Your task to perform on an android device: uninstall "Pluto TV - Live TV and Movies" Image 0: 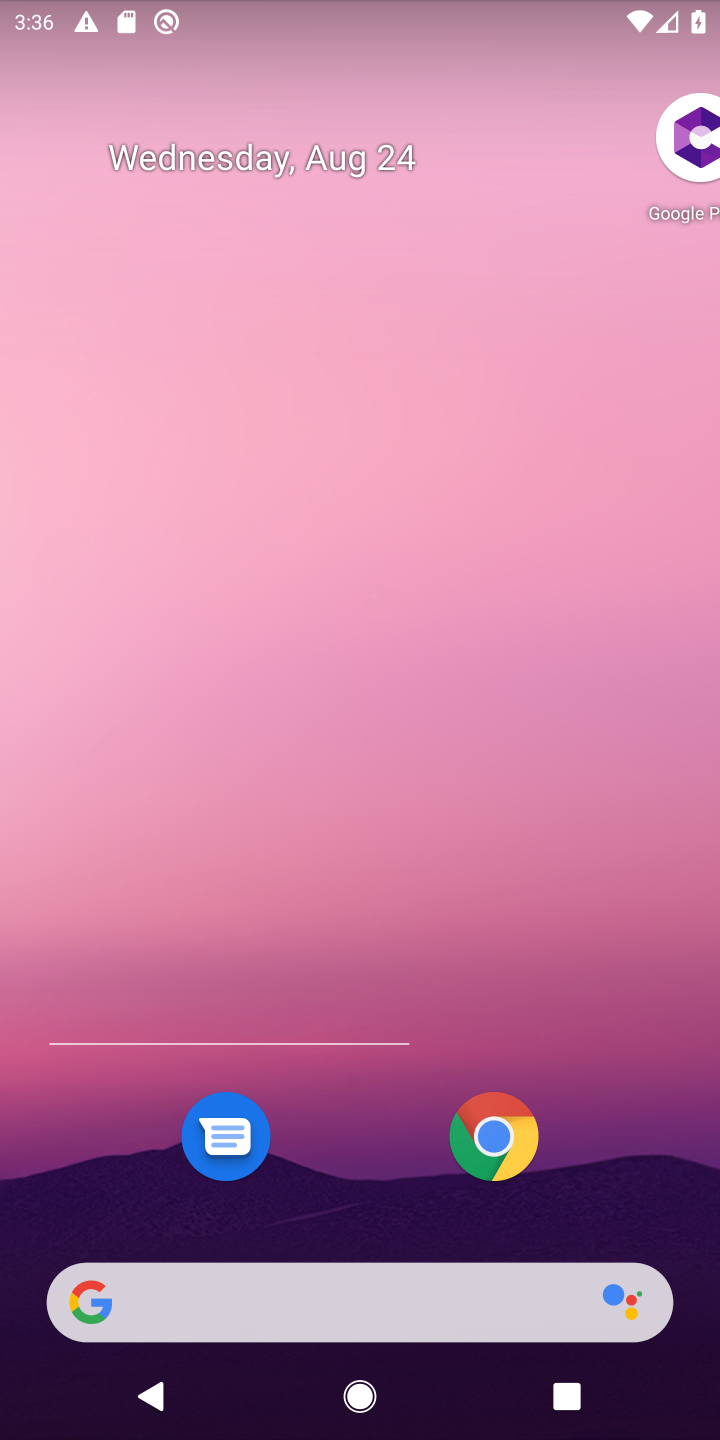
Step 0: press home button
Your task to perform on an android device: uninstall "Pluto TV - Live TV and Movies" Image 1: 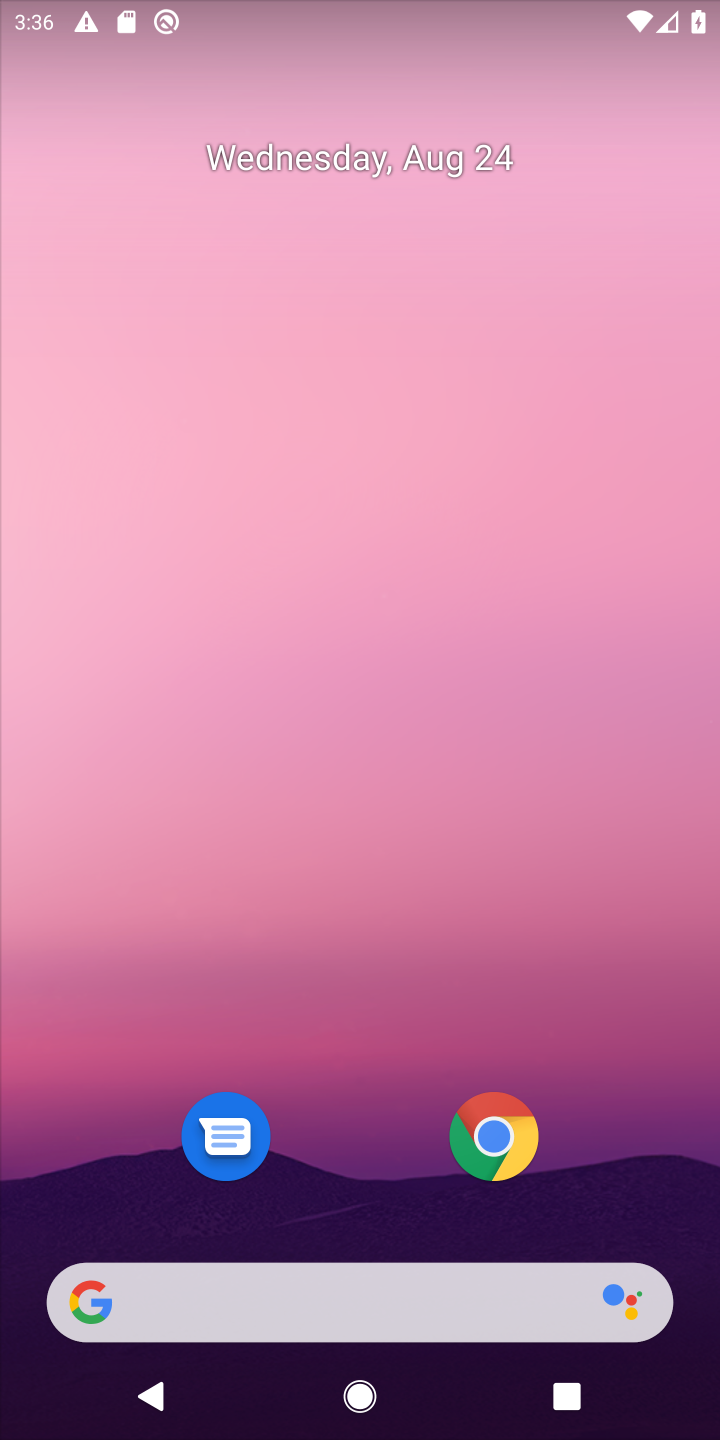
Step 1: press home button
Your task to perform on an android device: uninstall "Pluto TV - Live TV and Movies" Image 2: 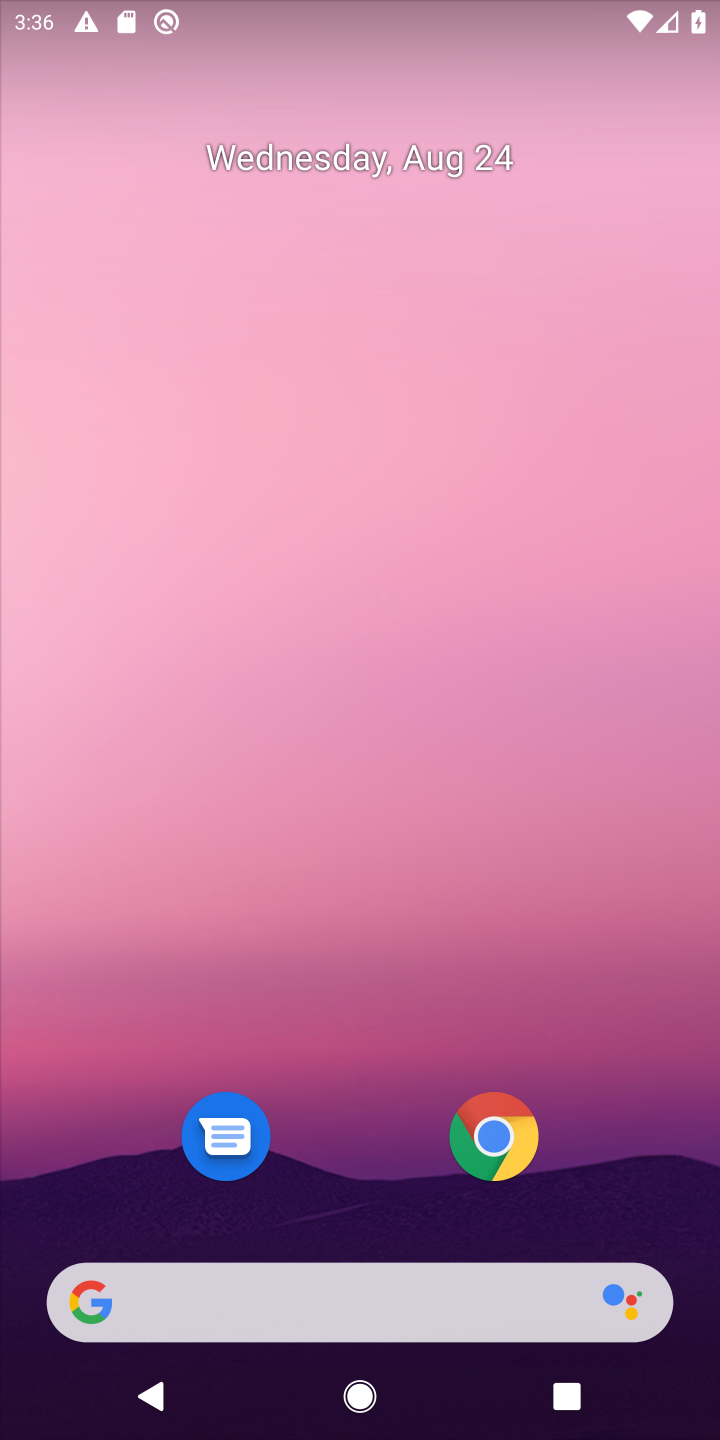
Step 2: drag from (358, 495) to (392, 108)
Your task to perform on an android device: uninstall "Pluto TV - Live TV and Movies" Image 3: 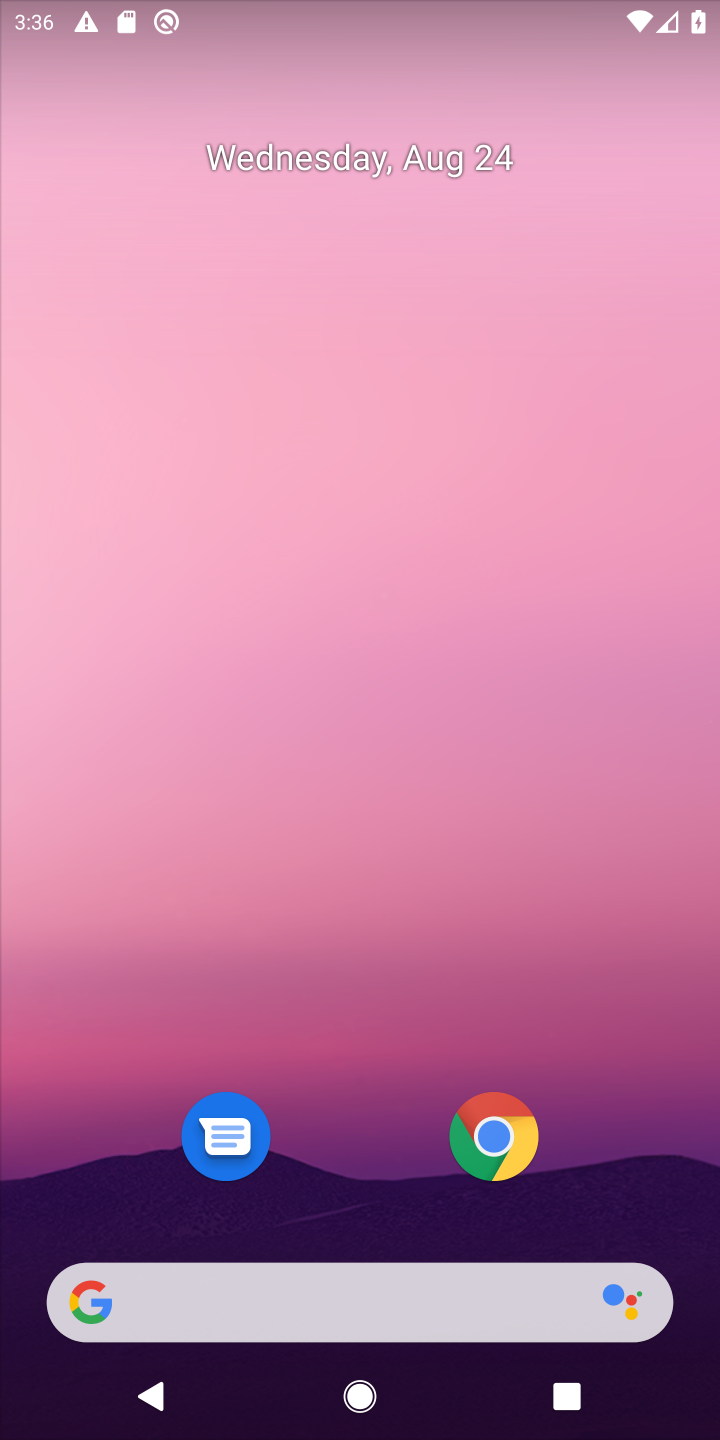
Step 3: click (358, 258)
Your task to perform on an android device: uninstall "Pluto TV - Live TV and Movies" Image 4: 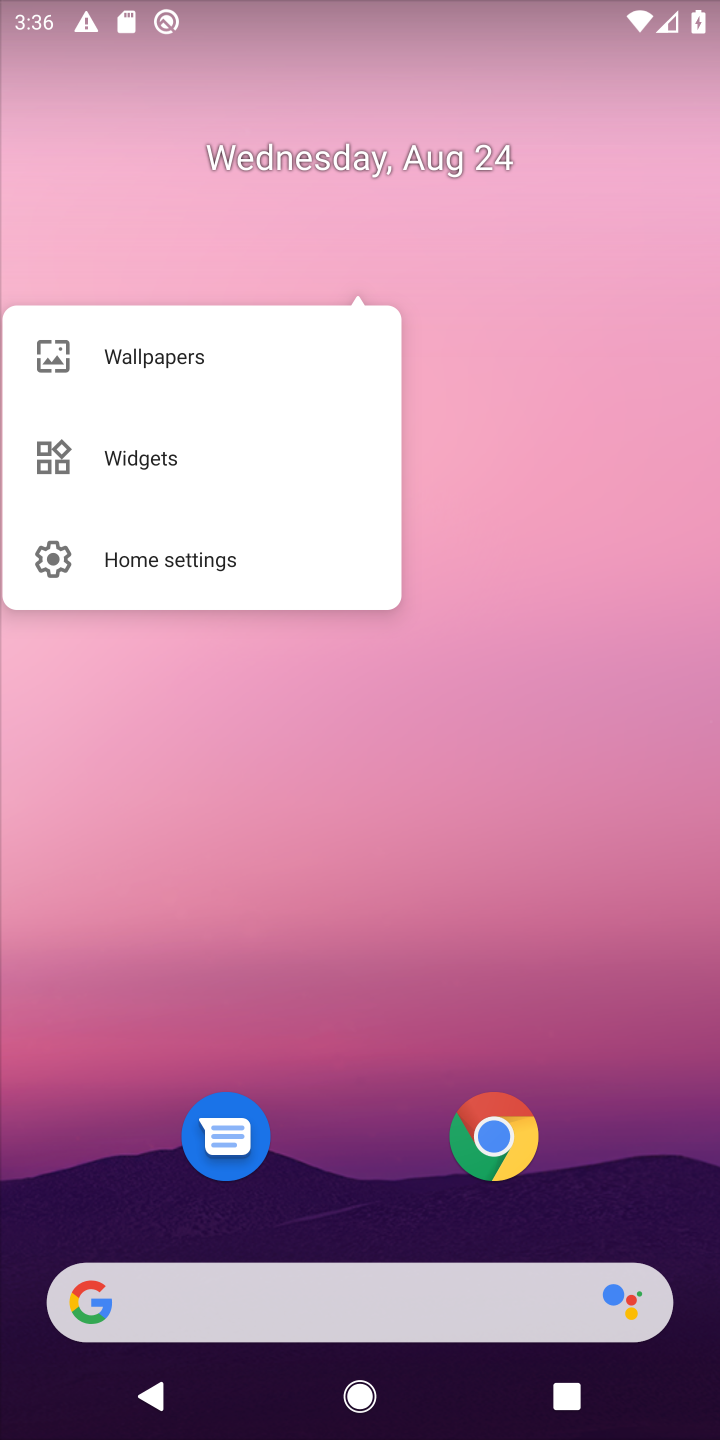
Step 4: click (335, 1184)
Your task to perform on an android device: uninstall "Pluto TV - Live TV and Movies" Image 5: 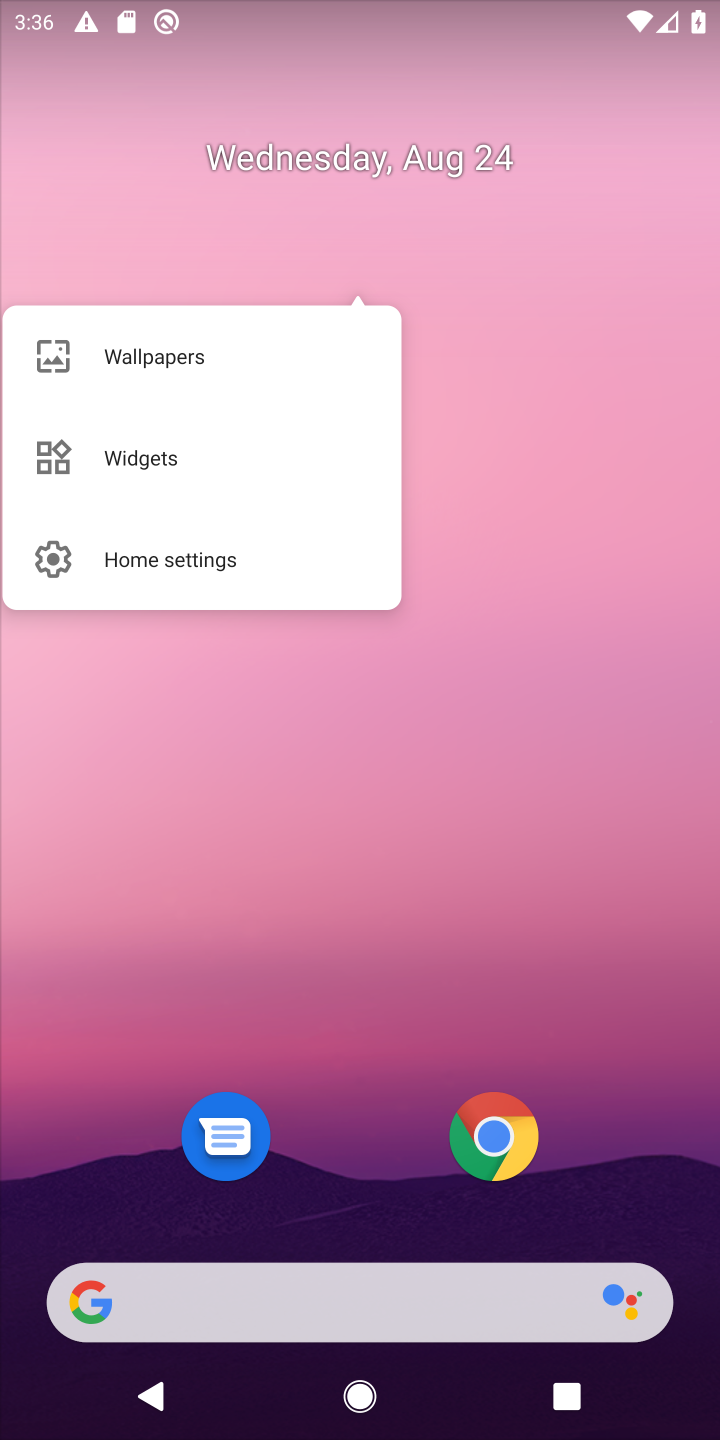
Step 5: drag from (335, 1162) to (407, 27)
Your task to perform on an android device: uninstall "Pluto TV - Live TV and Movies" Image 6: 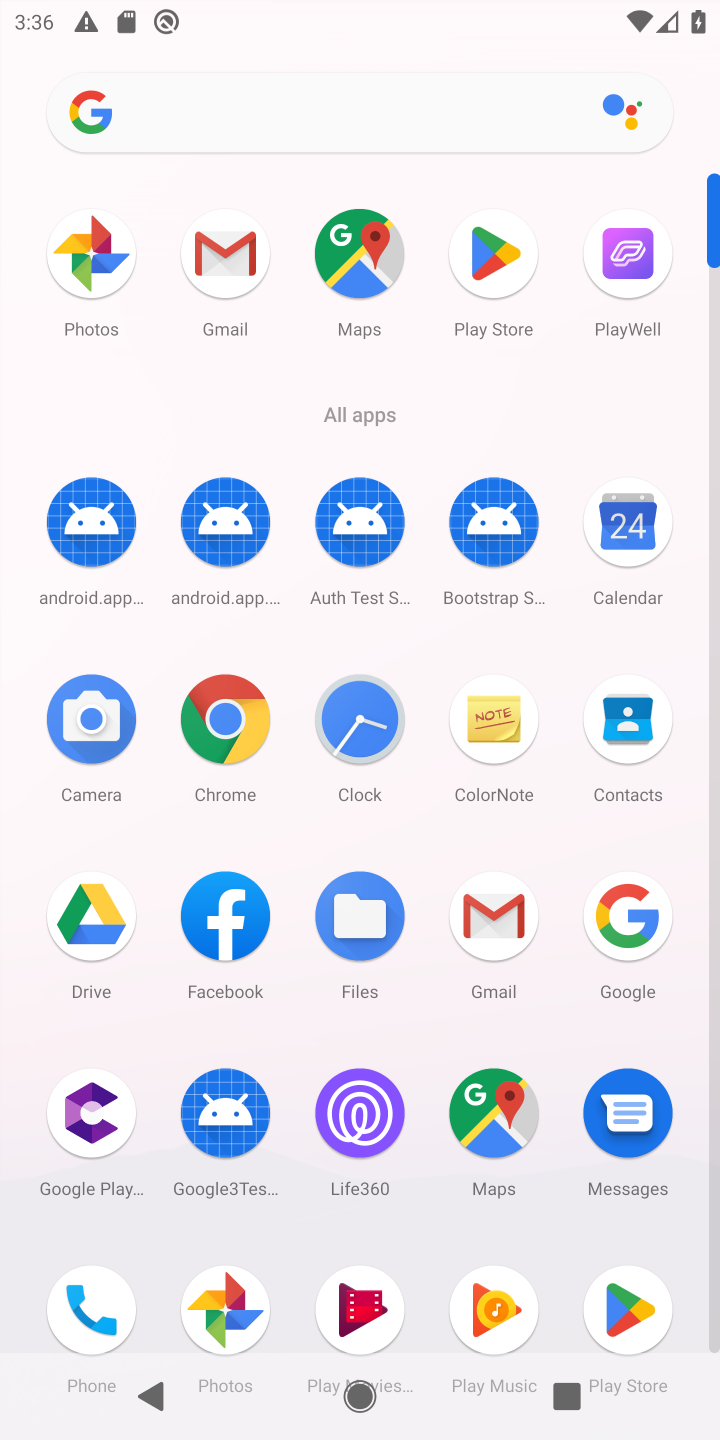
Step 6: click (477, 364)
Your task to perform on an android device: uninstall "Pluto TV - Live TV and Movies" Image 7: 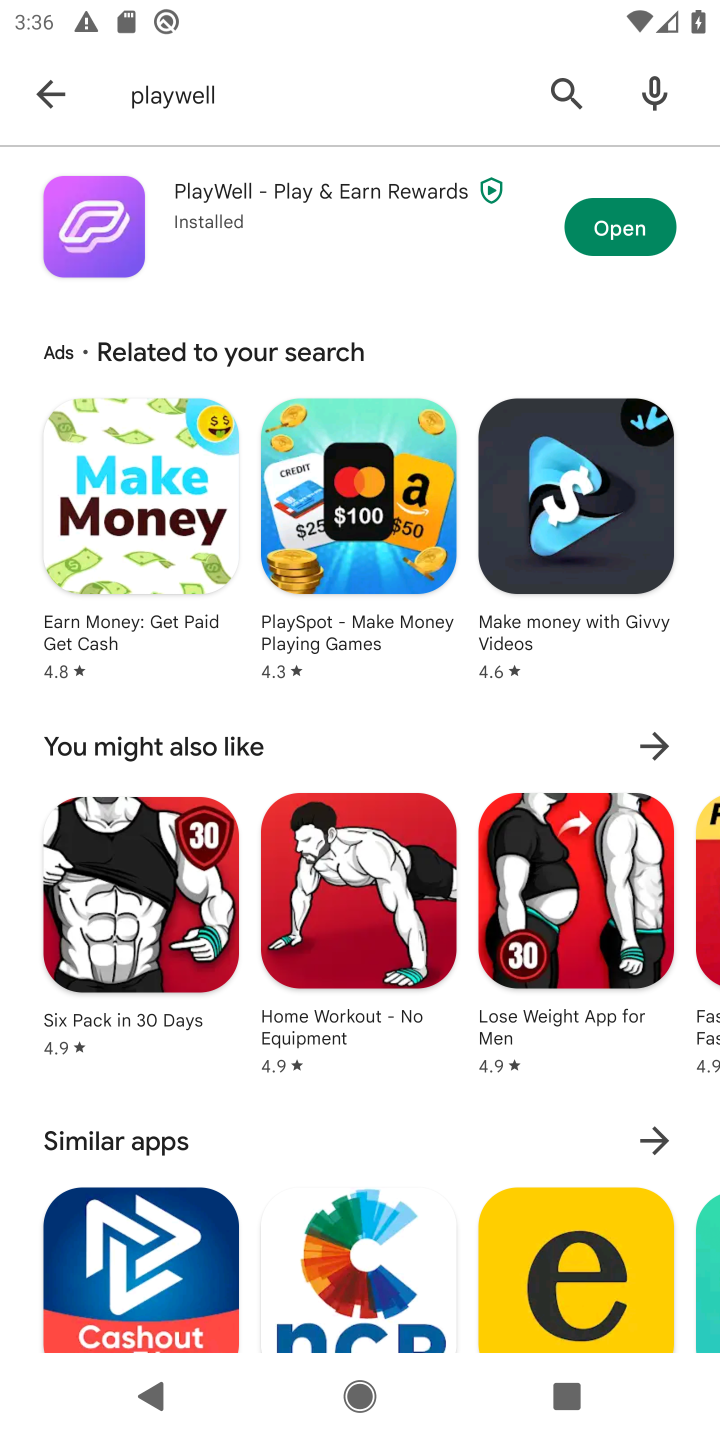
Step 7: click (47, 89)
Your task to perform on an android device: uninstall "Pluto TV - Live TV and Movies" Image 8: 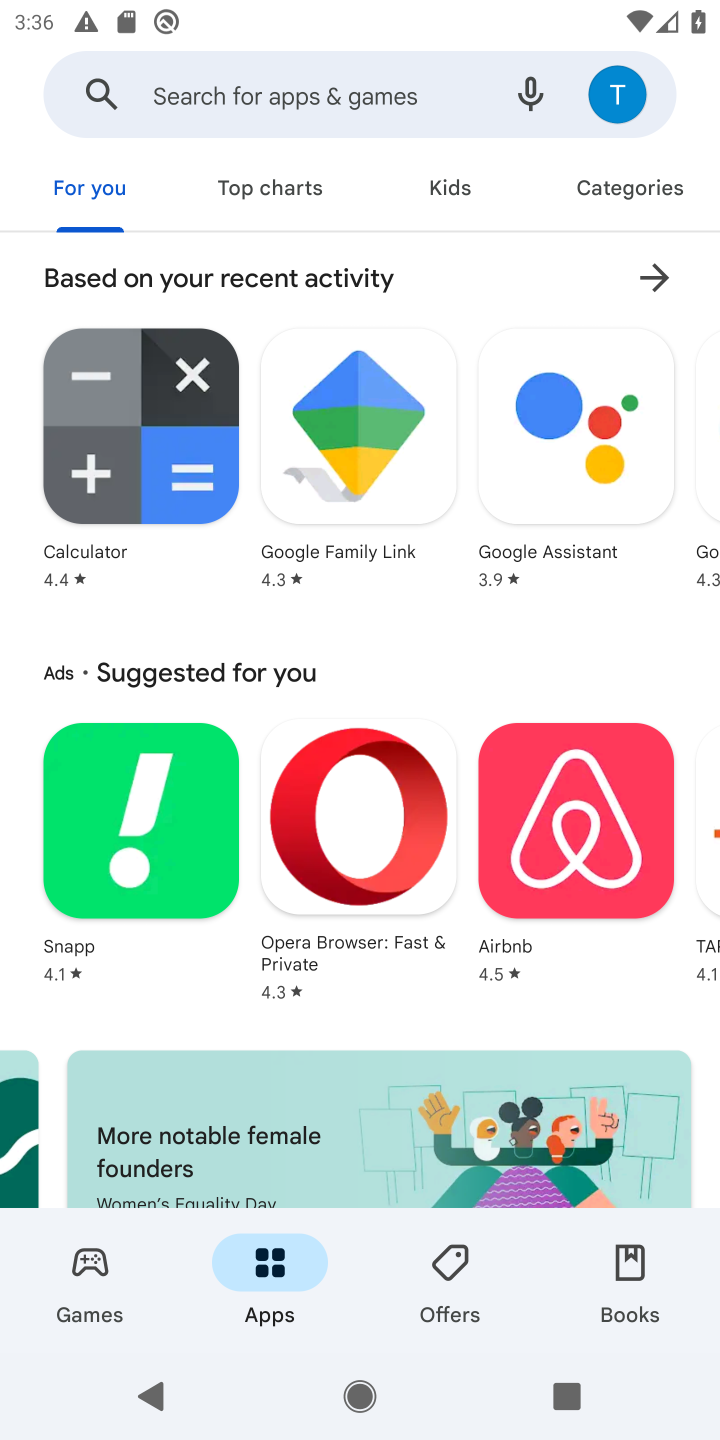
Step 8: click (210, 63)
Your task to perform on an android device: uninstall "Pluto TV - Live TV and Movies" Image 9: 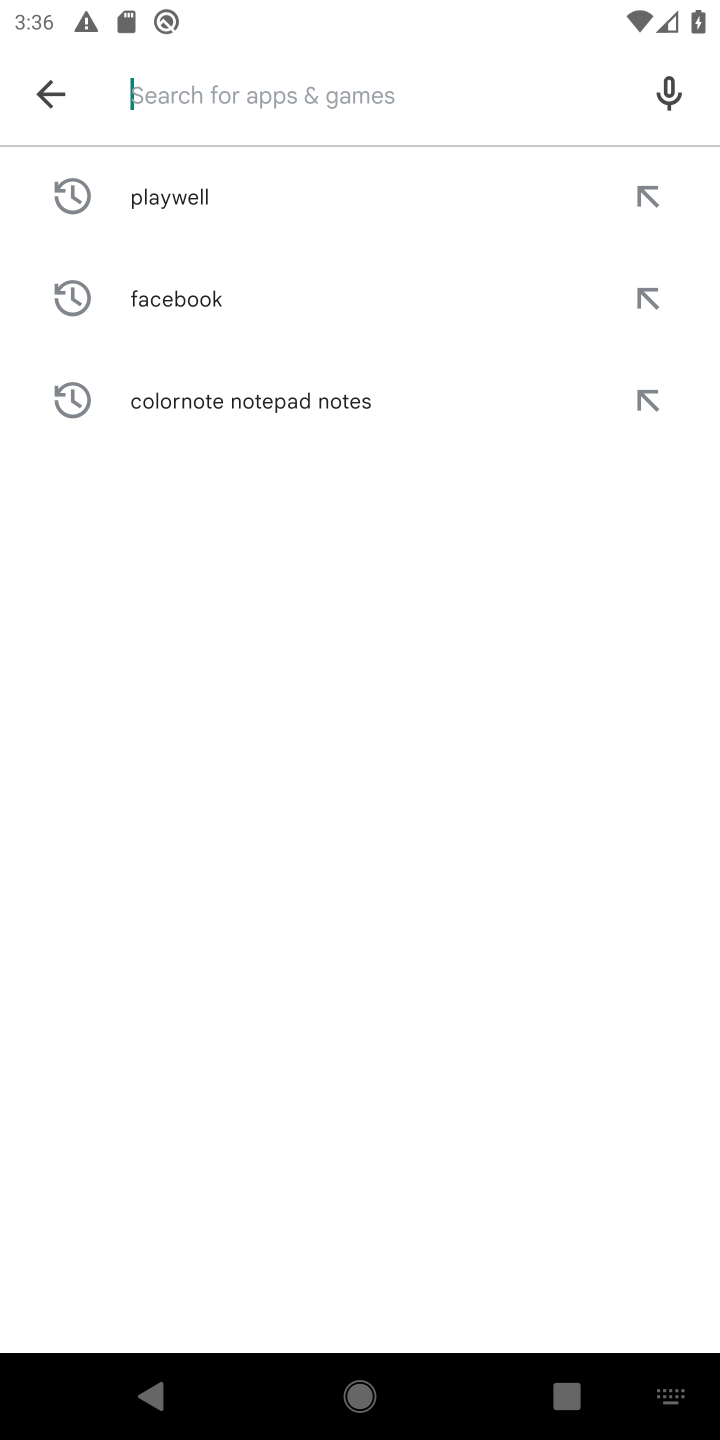
Step 9: type "Pluto TV - Live TV and Movies"
Your task to perform on an android device: uninstall "Pluto TV - Live TV and Movies" Image 10: 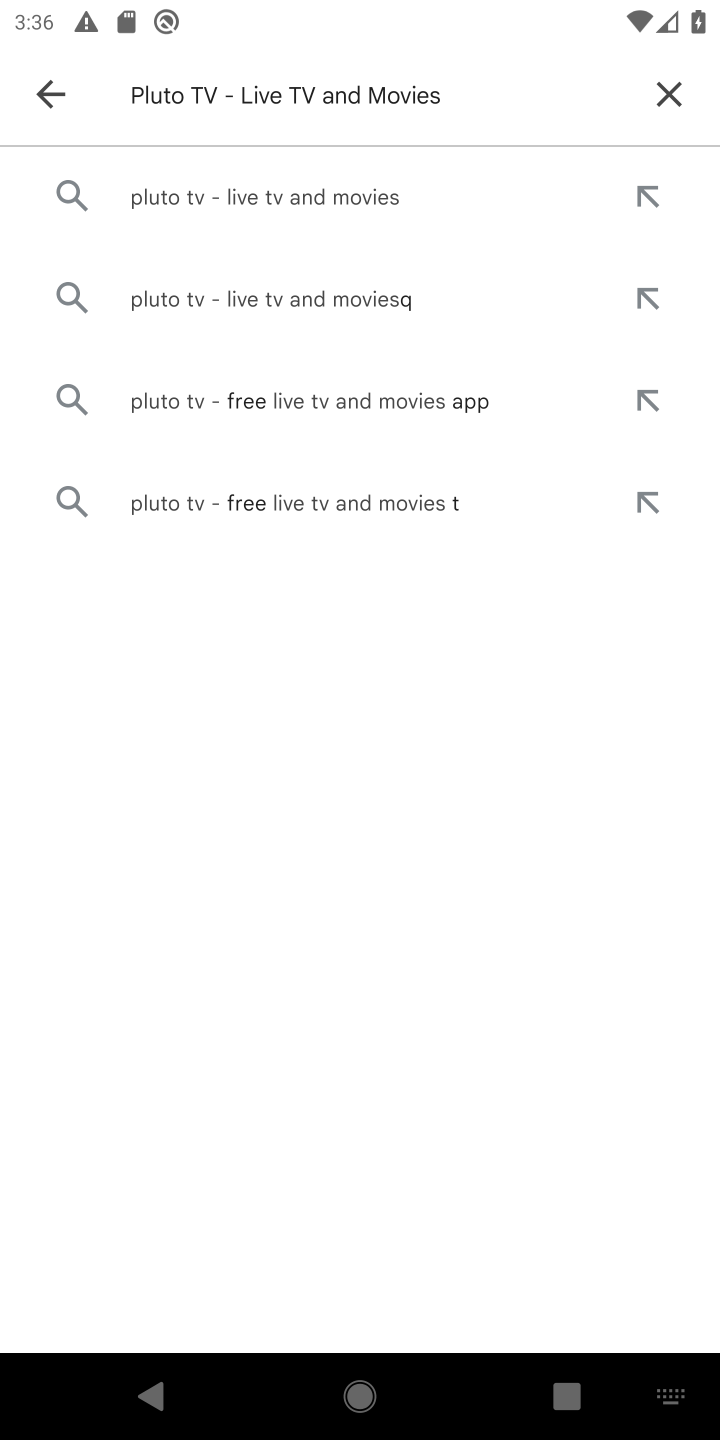
Step 10: click (230, 195)
Your task to perform on an android device: uninstall "Pluto TV - Live TV and Movies" Image 11: 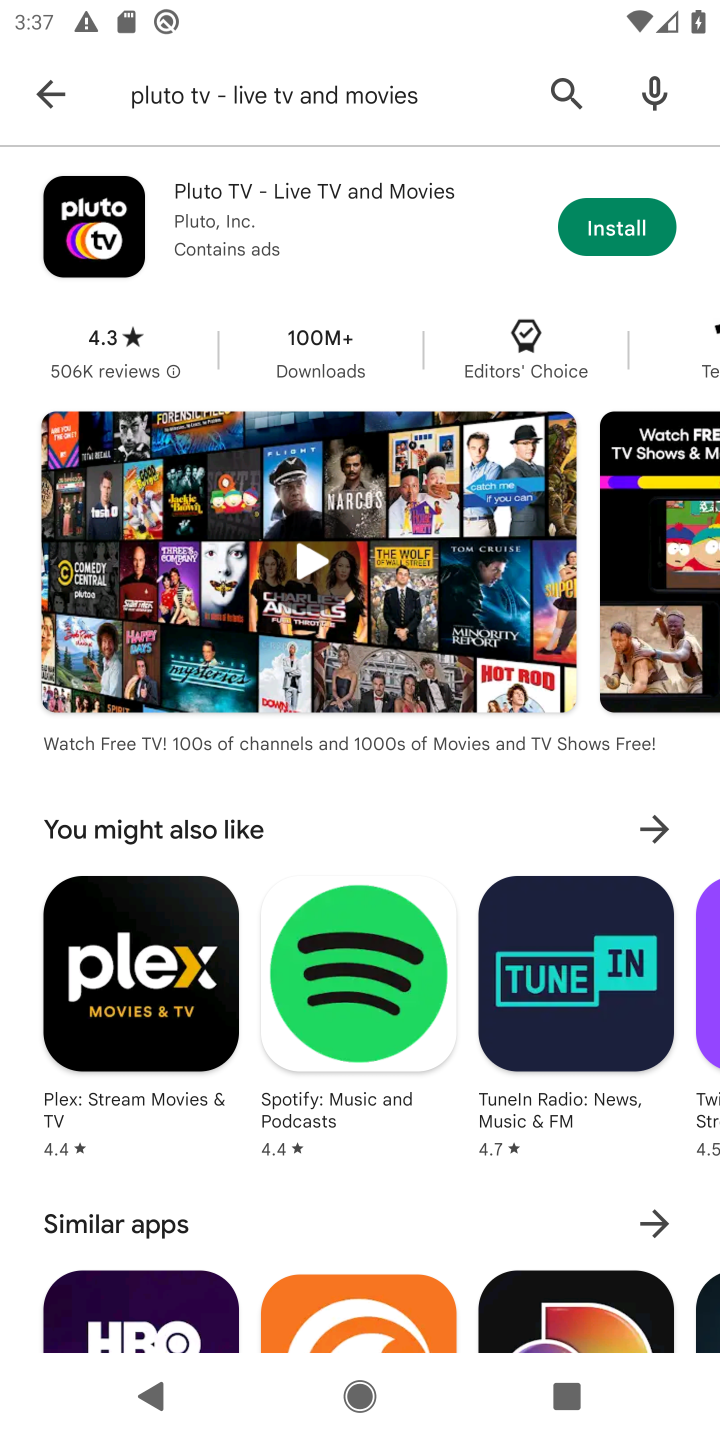
Step 11: click (600, 224)
Your task to perform on an android device: uninstall "Pluto TV - Live TV and Movies" Image 12: 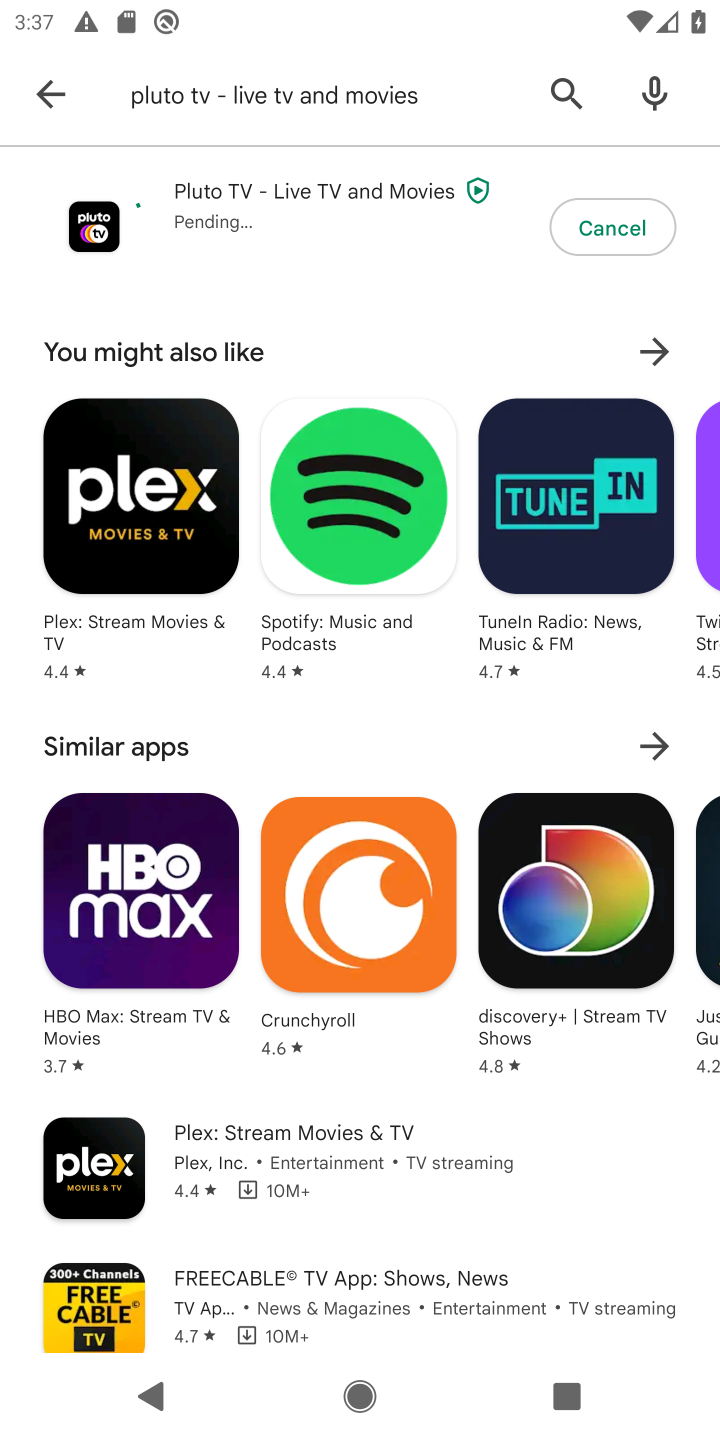
Step 12: click (620, 224)
Your task to perform on an android device: uninstall "Pluto TV - Live TV and Movies" Image 13: 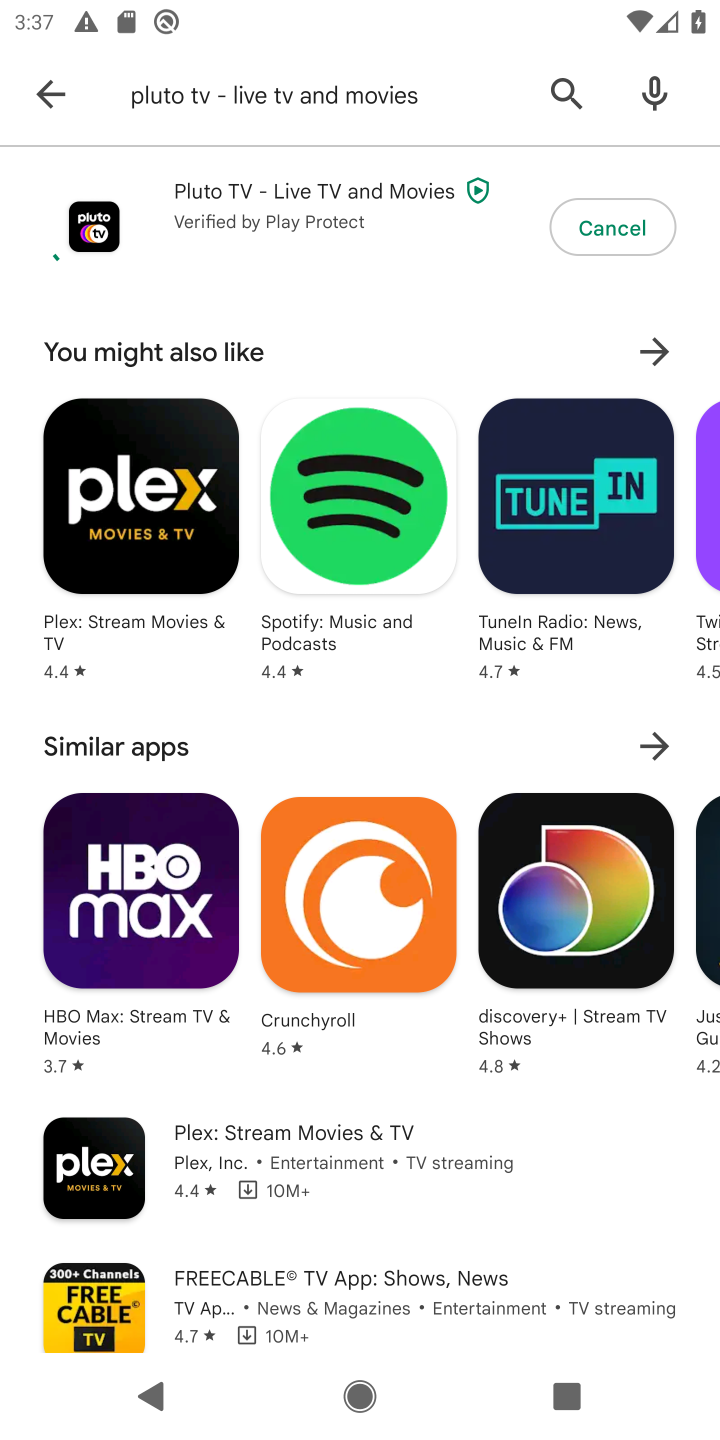
Step 13: task complete